Your task to perform on an android device: Show me recent news Image 0: 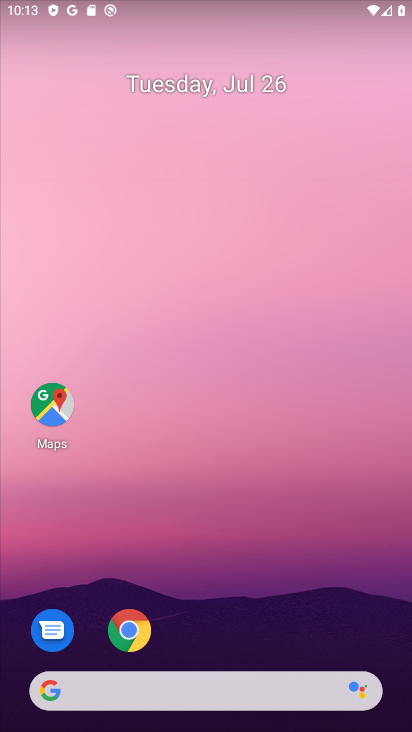
Step 0: drag from (253, 606) to (269, 310)
Your task to perform on an android device: Show me recent news Image 1: 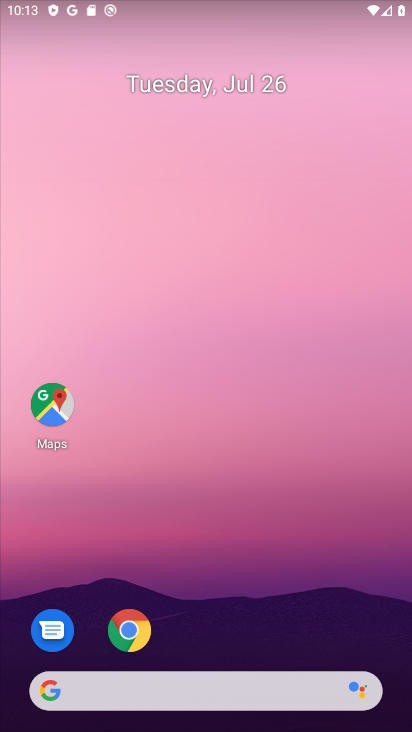
Step 1: drag from (237, 540) to (198, 215)
Your task to perform on an android device: Show me recent news Image 2: 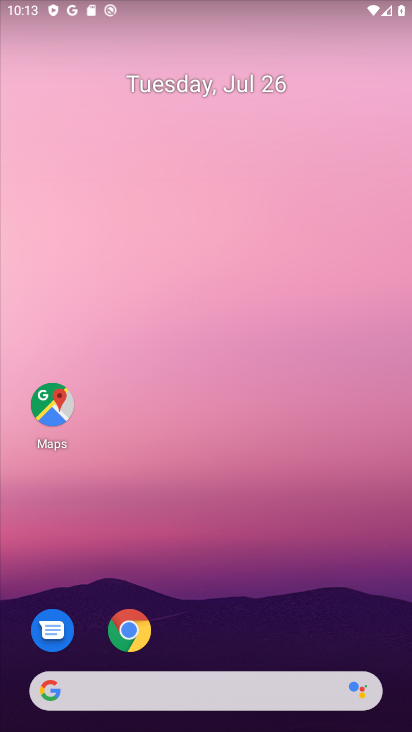
Step 2: drag from (242, 526) to (291, 100)
Your task to perform on an android device: Show me recent news Image 3: 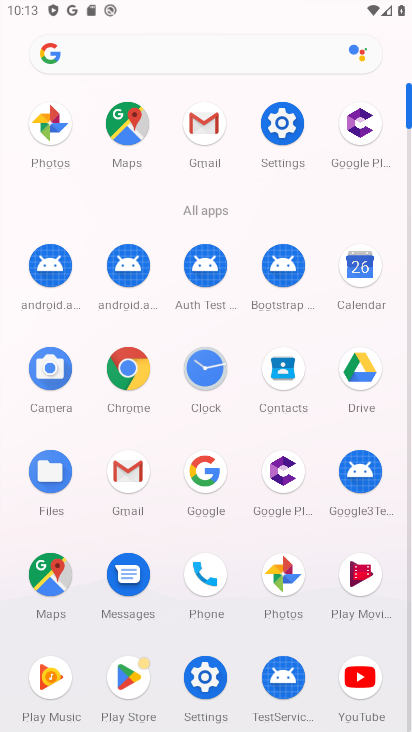
Step 3: click (210, 116)
Your task to perform on an android device: Show me recent news Image 4: 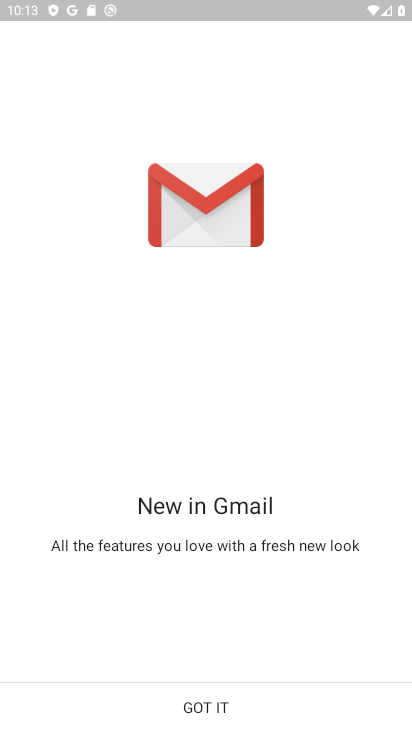
Step 4: press home button
Your task to perform on an android device: Show me recent news Image 5: 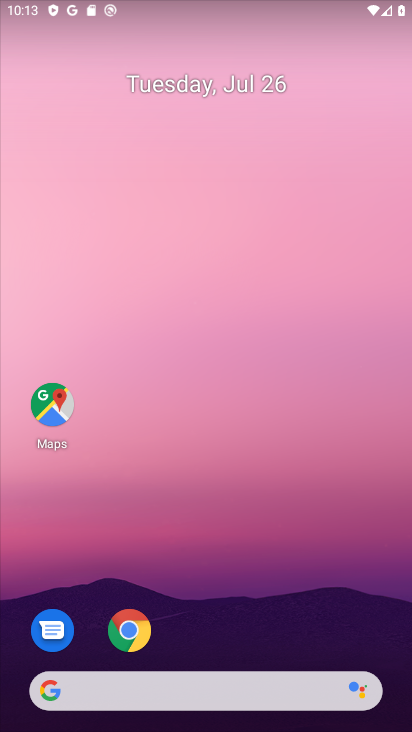
Step 5: click (215, 691)
Your task to perform on an android device: Show me recent news Image 6: 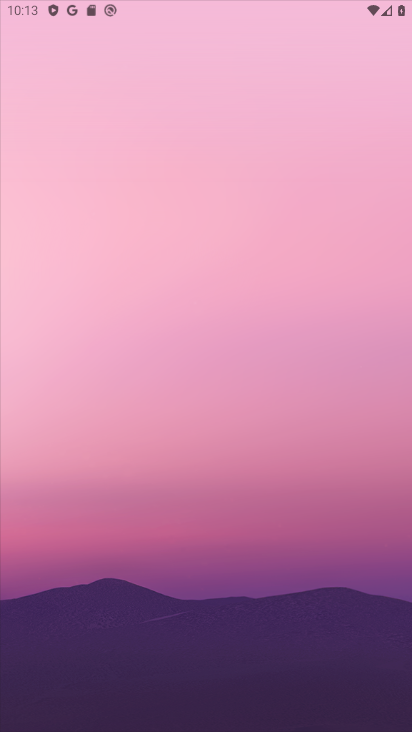
Step 6: click (215, 691)
Your task to perform on an android device: Show me recent news Image 7: 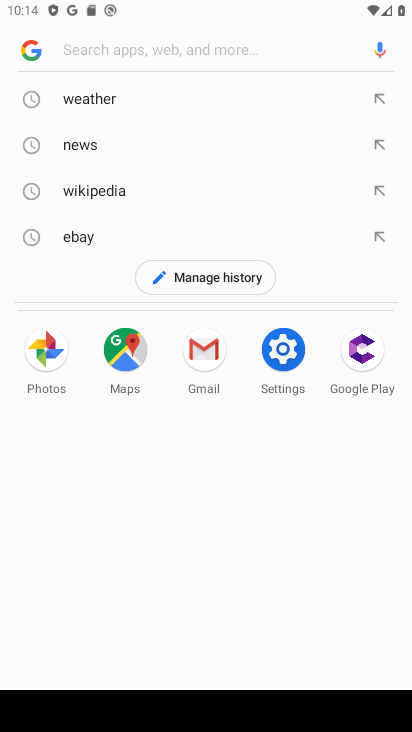
Step 7: type "Show me recent news"
Your task to perform on an android device: Show me recent news Image 8: 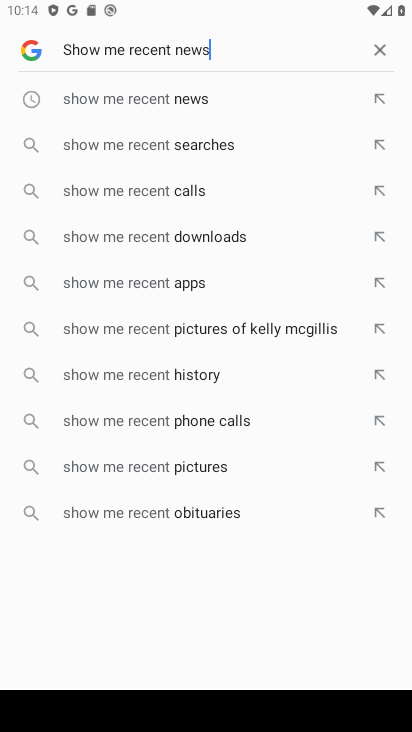
Step 8: press enter
Your task to perform on an android device: Show me recent news Image 9: 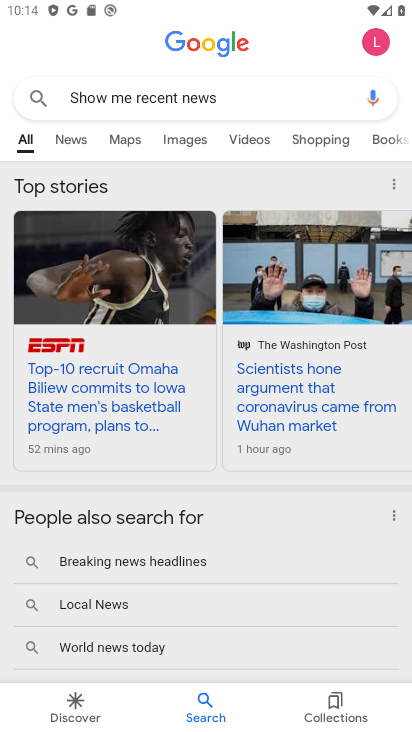
Step 9: task complete